Your task to perform on an android device: Search for "beats solo 3" on bestbuy.com, select the first entry, and add it to the cart. Image 0: 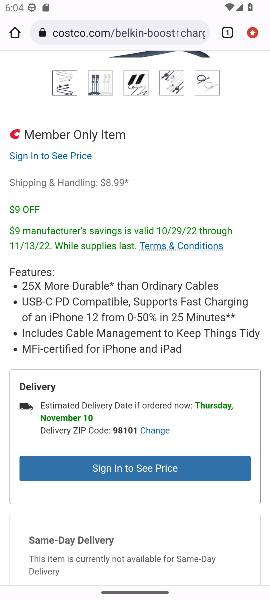
Step 0: press home button
Your task to perform on an android device: Search for "beats solo 3" on bestbuy.com, select the first entry, and add it to the cart. Image 1: 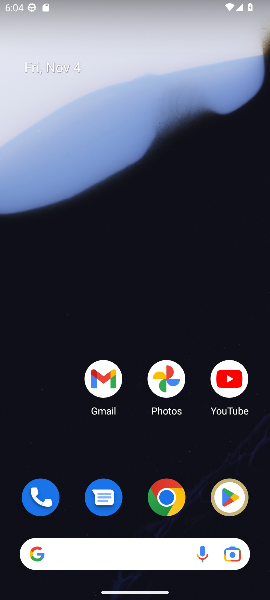
Step 1: click (165, 504)
Your task to perform on an android device: Search for "beats solo 3" on bestbuy.com, select the first entry, and add it to the cart. Image 2: 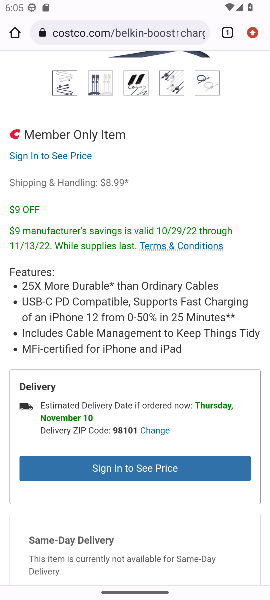
Step 2: click (112, 36)
Your task to perform on an android device: Search for "beats solo 3" on bestbuy.com, select the first entry, and add it to the cart. Image 3: 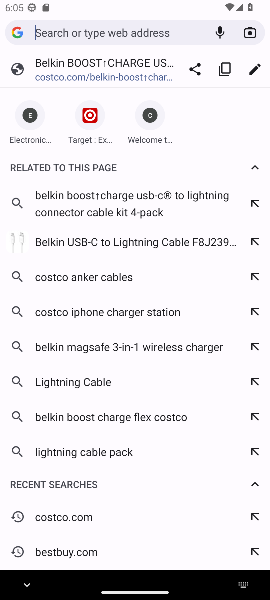
Step 3: click (50, 547)
Your task to perform on an android device: Search for "beats solo 3" on bestbuy.com, select the first entry, and add it to the cart. Image 4: 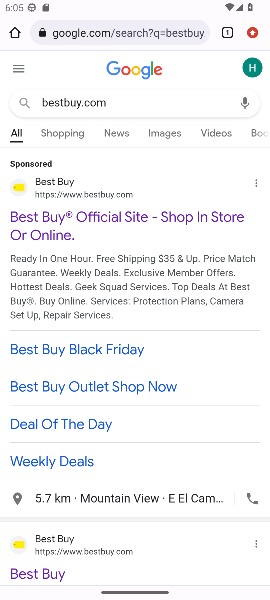
Step 4: drag from (102, 416) to (141, 189)
Your task to perform on an android device: Search for "beats solo 3" on bestbuy.com, select the first entry, and add it to the cart. Image 5: 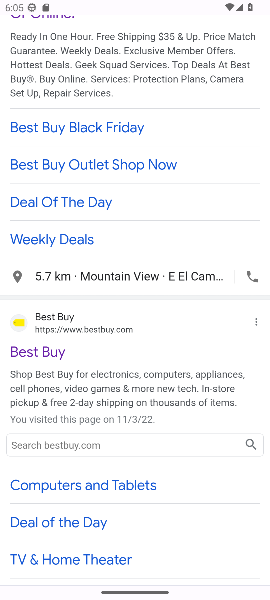
Step 5: click (70, 329)
Your task to perform on an android device: Search for "beats solo 3" on bestbuy.com, select the first entry, and add it to the cart. Image 6: 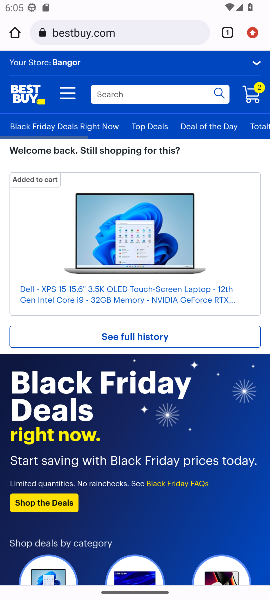
Step 6: click (145, 100)
Your task to perform on an android device: Search for "beats solo 3" on bestbuy.com, select the first entry, and add it to the cart. Image 7: 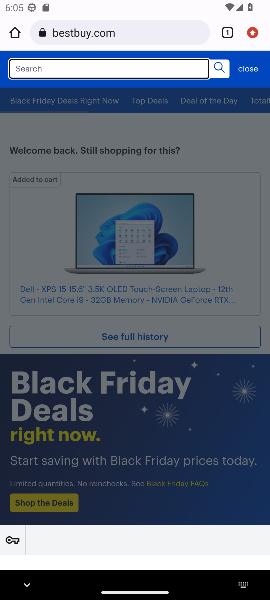
Step 7: type "beats solo 3"
Your task to perform on an android device: Search for "beats solo 3" on bestbuy.com, select the first entry, and add it to the cart. Image 8: 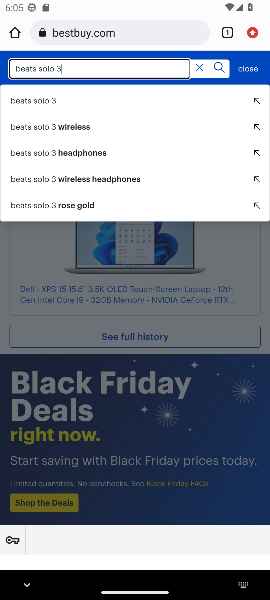
Step 8: click (44, 104)
Your task to perform on an android device: Search for "beats solo 3" on bestbuy.com, select the first entry, and add it to the cart. Image 9: 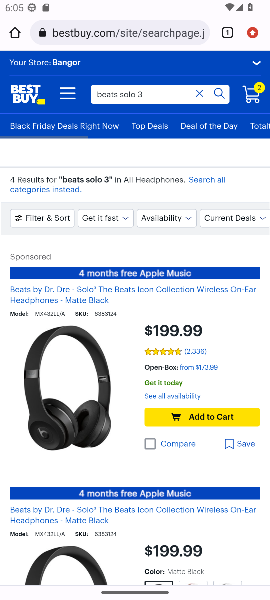
Step 9: click (201, 419)
Your task to perform on an android device: Search for "beats solo 3" on bestbuy.com, select the first entry, and add it to the cart. Image 10: 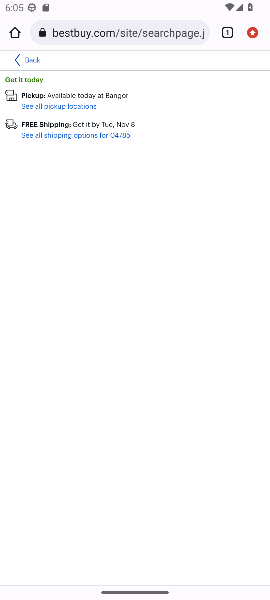
Step 10: drag from (40, 116) to (39, 178)
Your task to perform on an android device: Search for "beats solo 3" on bestbuy.com, select the first entry, and add it to the cart. Image 11: 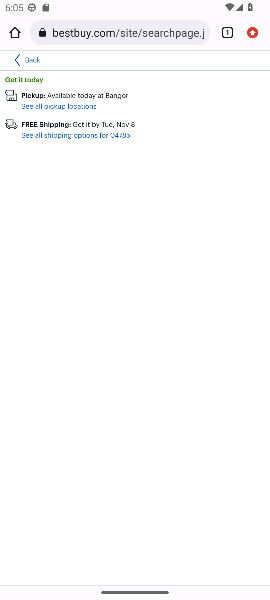
Step 11: click (11, 58)
Your task to perform on an android device: Search for "beats solo 3" on bestbuy.com, select the first entry, and add it to the cart. Image 12: 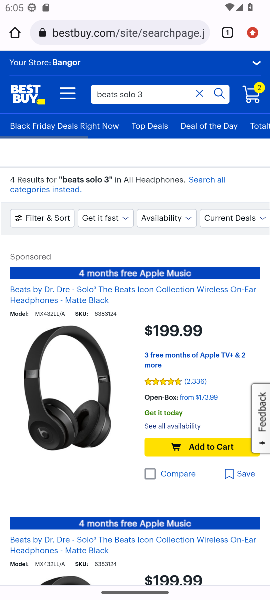
Step 12: click (195, 441)
Your task to perform on an android device: Search for "beats solo 3" on bestbuy.com, select the first entry, and add it to the cart. Image 13: 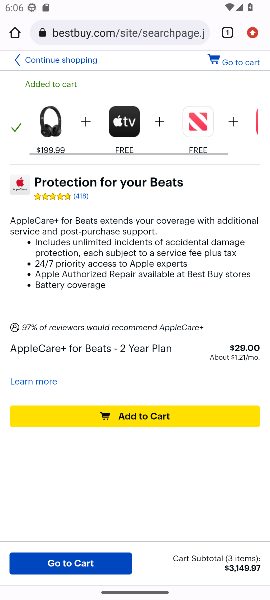
Step 13: task complete